Your task to perform on an android device: Open location settings Image 0: 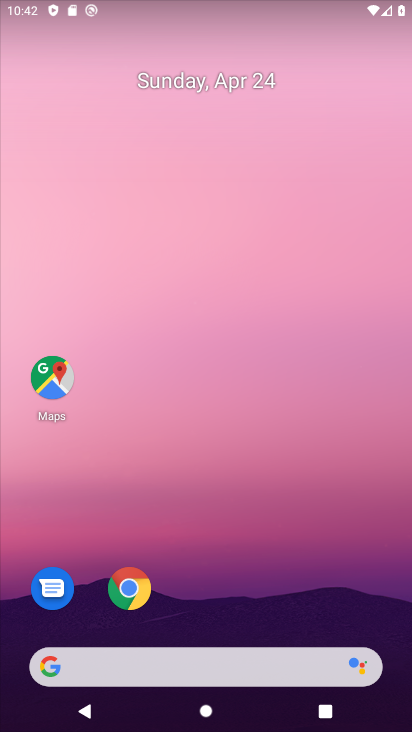
Step 0: drag from (265, 421) to (261, 29)
Your task to perform on an android device: Open location settings Image 1: 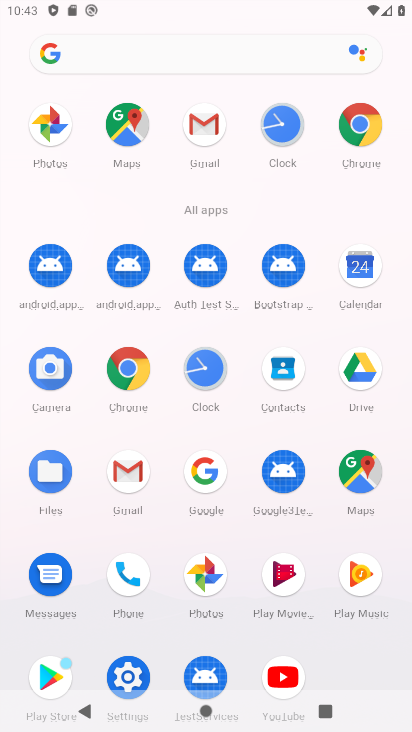
Step 1: click (133, 673)
Your task to perform on an android device: Open location settings Image 2: 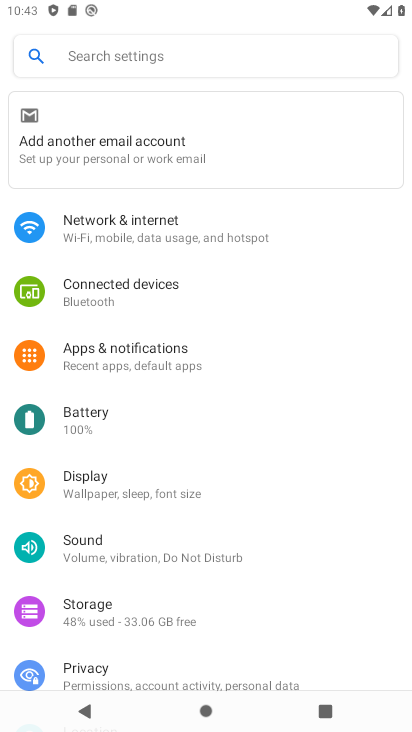
Step 2: drag from (236, 410) to (234, 280)
Your task to perform on an android device: Open location settings Image 3: 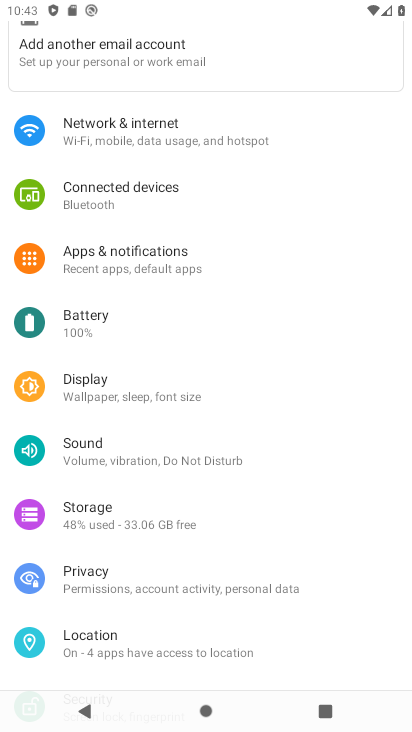
Step 3: click (196, 642)
Your task to perform on an android device: Open location settings Image 4: 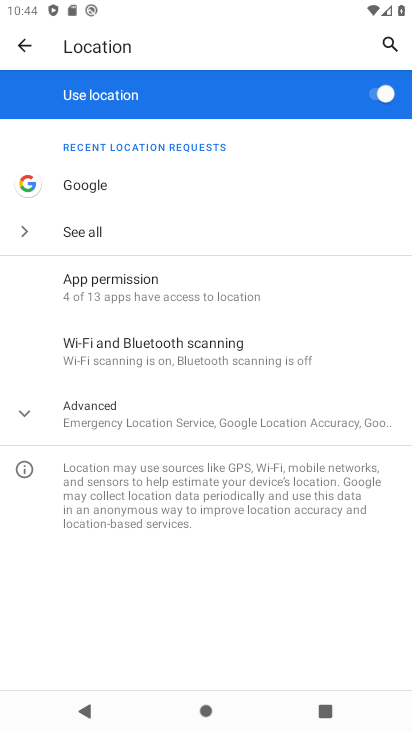
Step 4: task complete